Your task to perform on an android device: check the backup settings in the google photos Image 0: 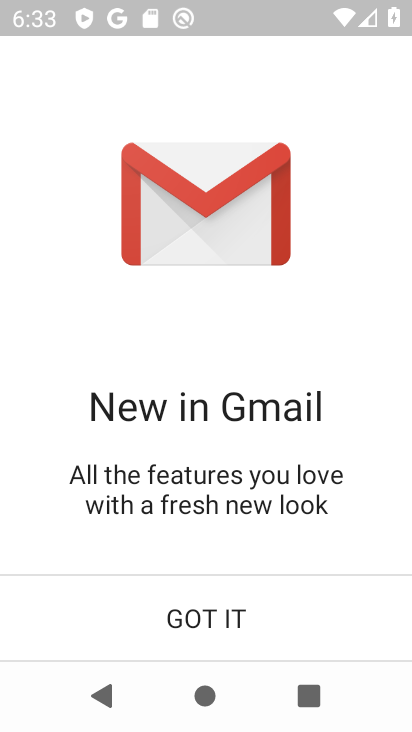
Step 0: click (203, 622)
Your task to perform on an android device: check the backup settings in the google photos Image 1: 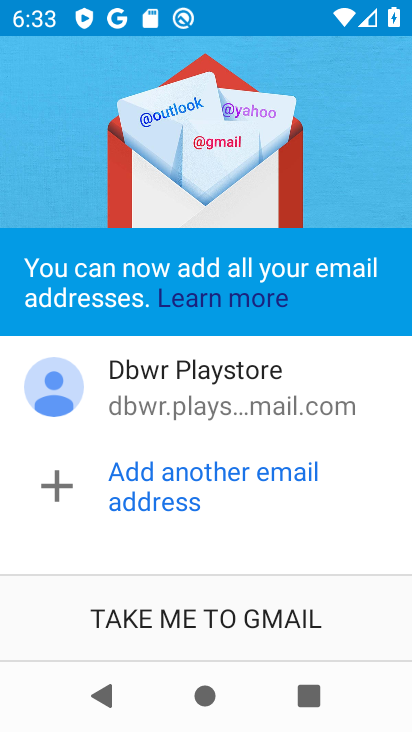
Step 1: press home button
Your task to perform on an android device: check the backup settings in the google photos Image 2: 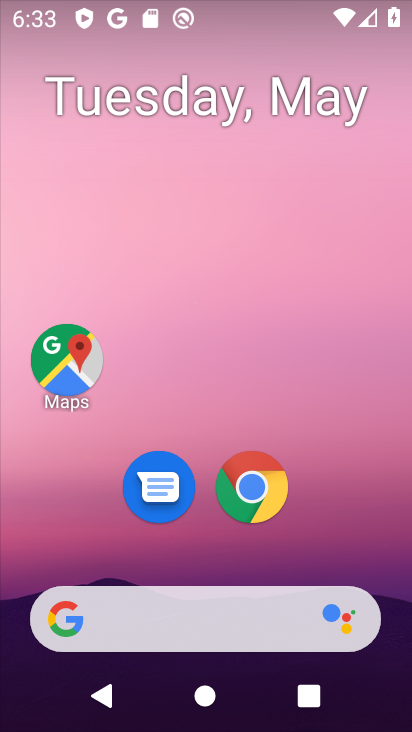
Step 2: drag from (337, 517) to (270, 221)
Your task to perform on an android device: check the backup settings in the google photos Image 3: 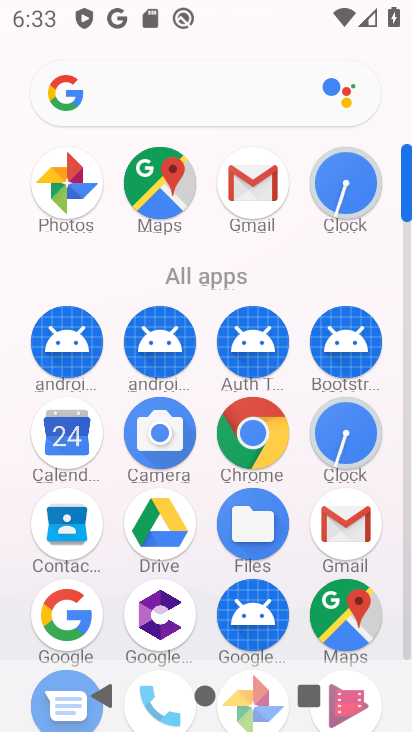
Step 3: click (64, 183)
Your task to perform on an android device: check the backup settings in the google photos Image 4: 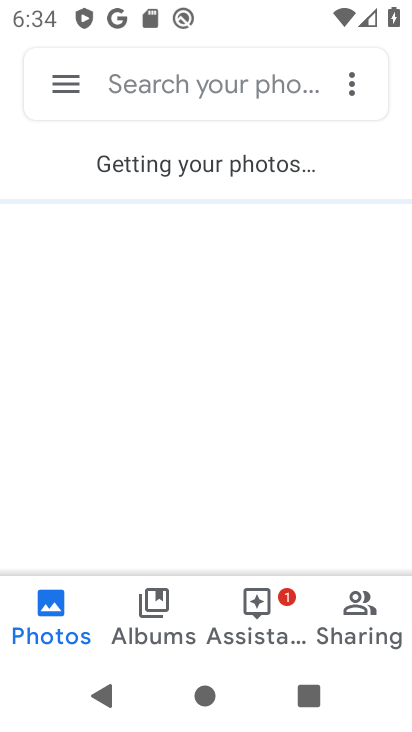
Step 4: click (63, 87)
Your task to perform on an android device: check the backup settings in the google photos Image 5: 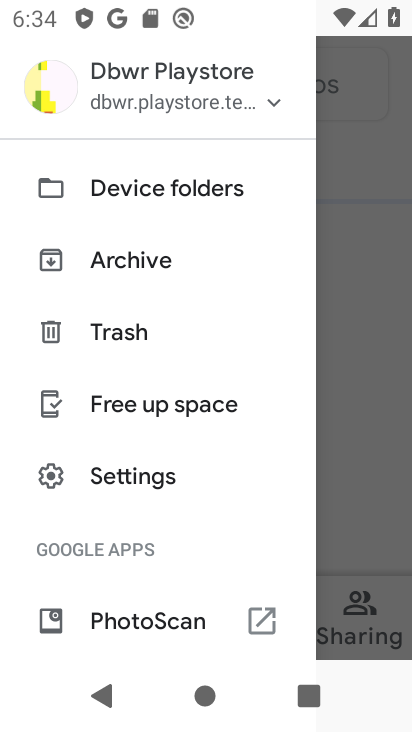
Step 5: click (142, 474)
Your task to perform on an android device: check the backup settings in the google photos Image 6: 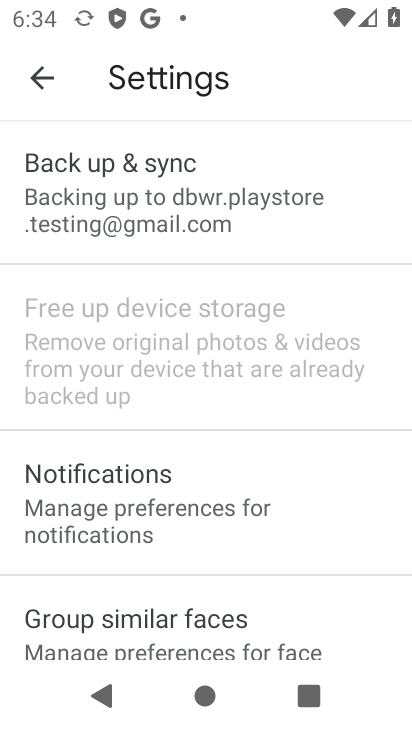
Step 6: click (137, 178)
Your task to perform on an android device: check the backup settings in the google photos Image 7: 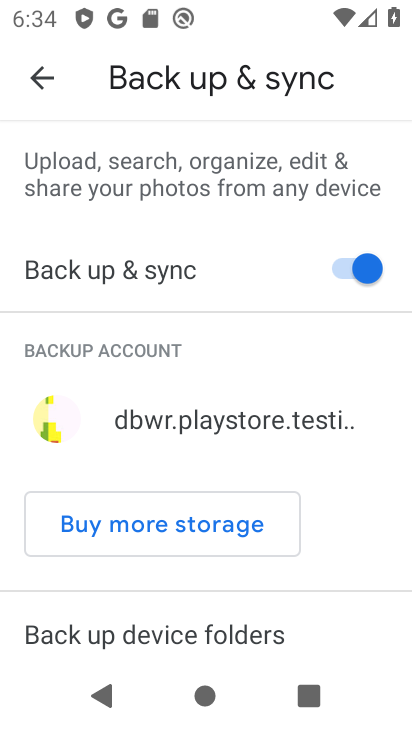
Step 7: task complete